Your task to perform on an android device: Set an alarm for 2pm Image 0: 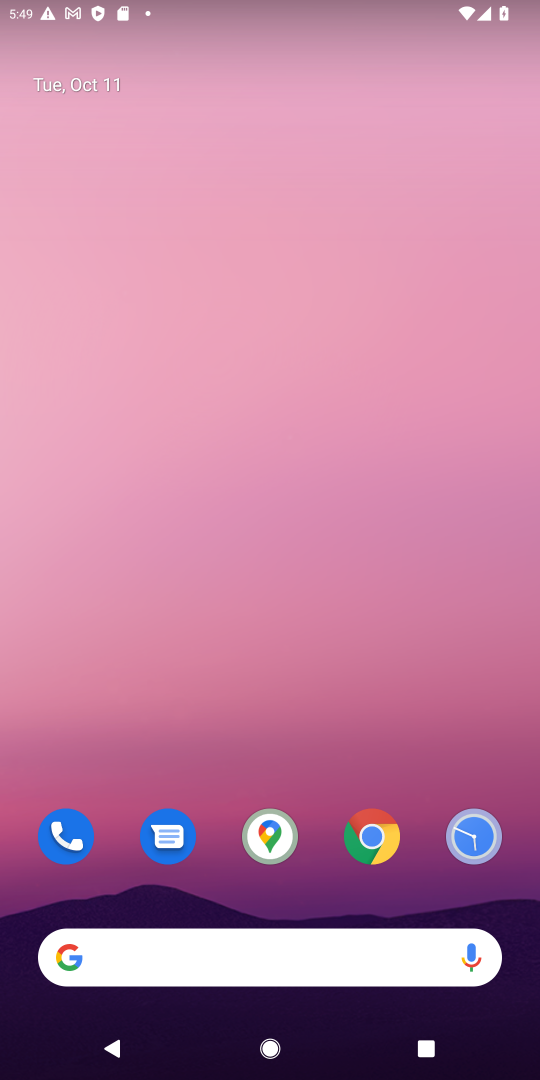
Step 0: click (470, 831)
Your task to perform on an android device: Set an alarm for 2pm Image 1: 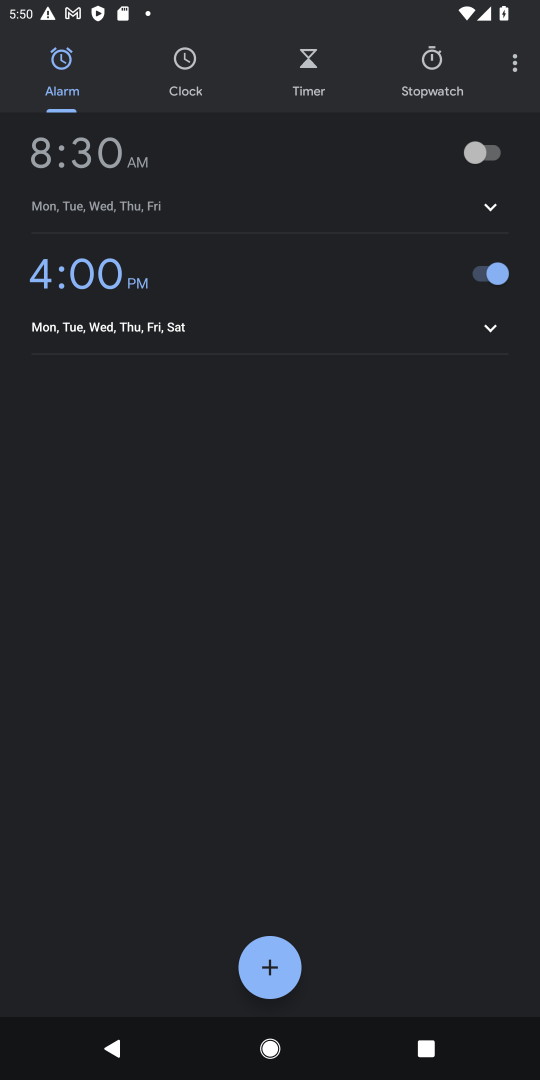
Step 1: click (83, 280)
Your task to perform on an android device: Set an alarm for 2pm Image 2: 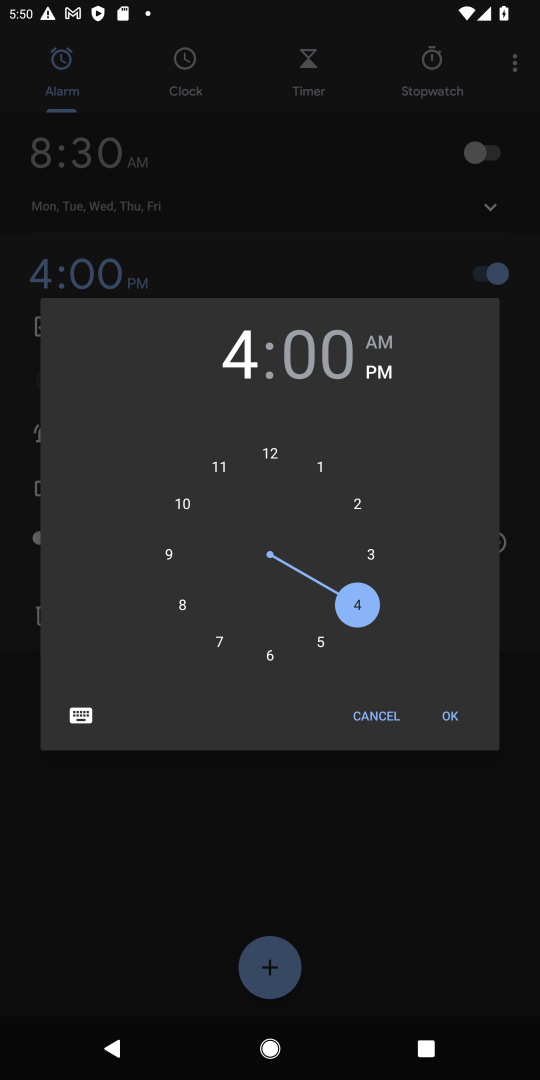
Step 2: click (358, 503)
Your task to perform on an android device: Set an alarm for 2pm Image 3: 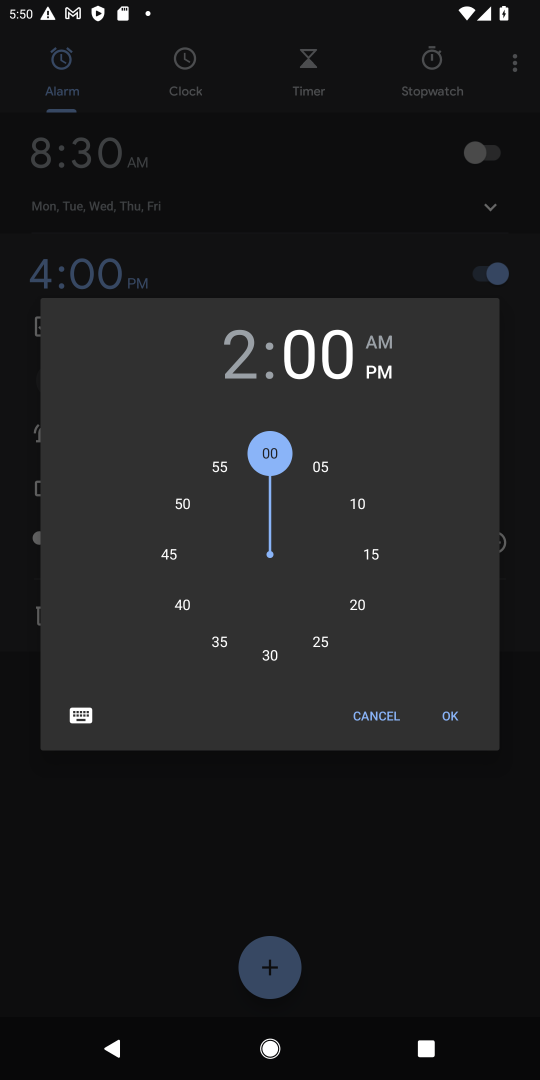
Step 3: click (448, 711)
Your task to perform on an android device: Set an alarm for 2pm Image 4: 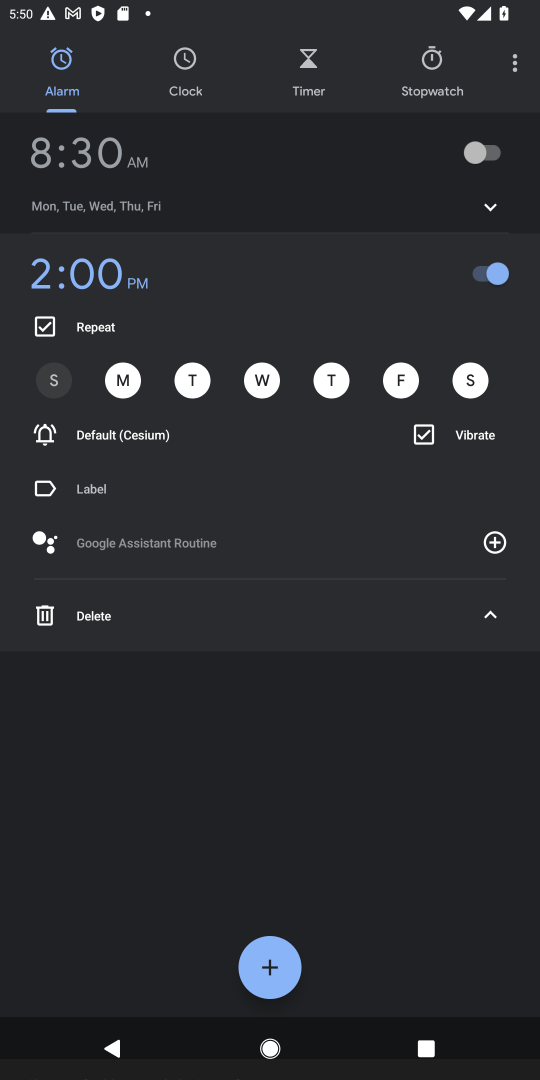
Step 4: click (488, 609)
Your task to perform on an android device: Set an alarm for 2pm Image 5: 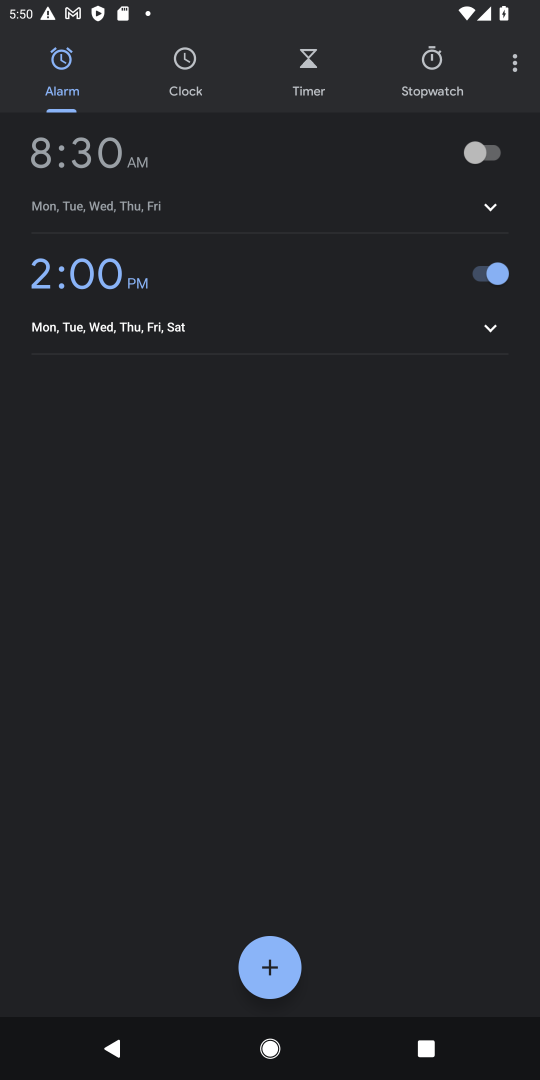
Step 5: task complete